Your task to perform on an android device: toggle notifications settings in the gmail app Image 0: 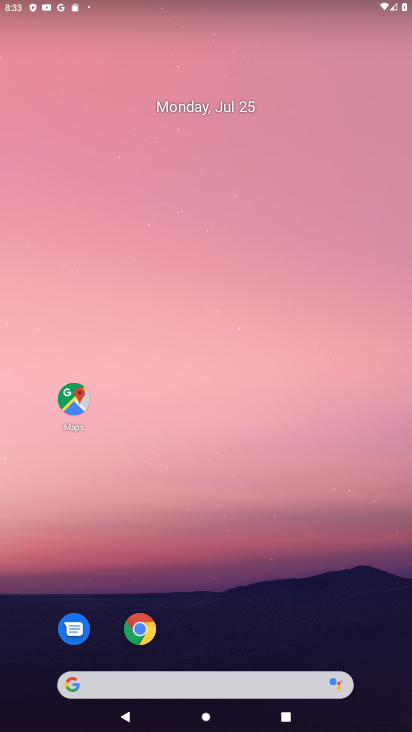
Step 0: drag from (218, 654) to (192, 6)
Your task to perform on an android device: toggle notifications settings in the gmail app Image 1: 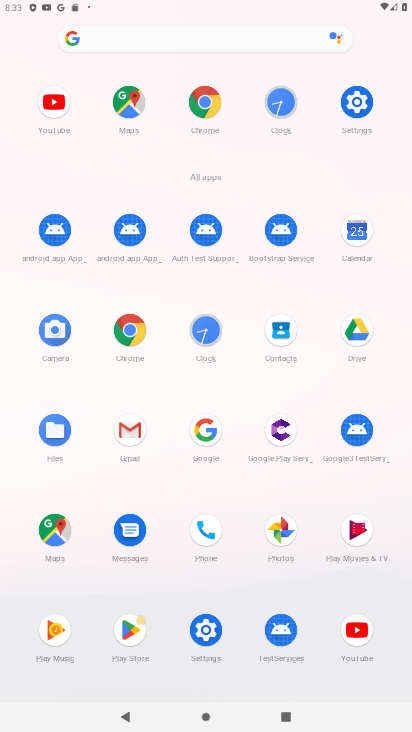
Step 1: click (357, 109)
Your task to perform on an android device: toggle notifications settings in the gmail app Image 2: 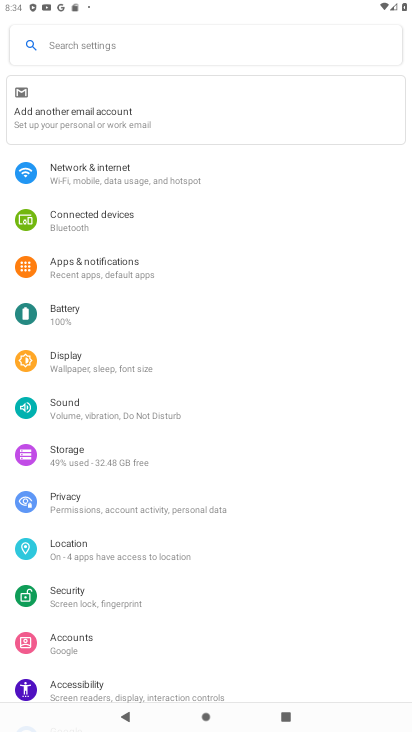
Step 2: click (142, 281)
Your task to perform on an android device: toggle notifications settings in the gmail app Image 3: 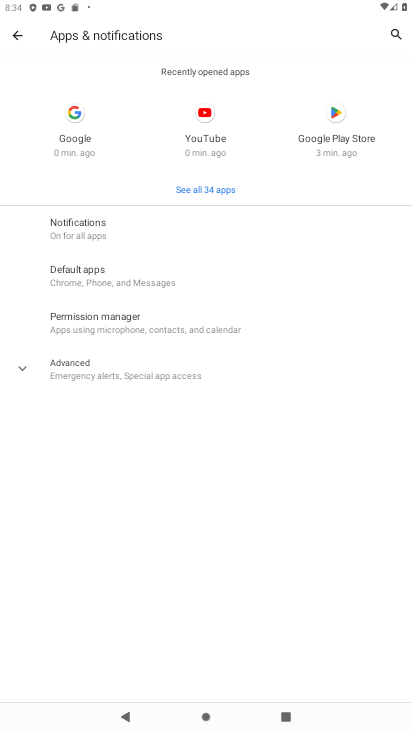
Step 3: click (220, 183)
Your task to perform on an android device: toggle notifications settings in the gmail app Image 4: 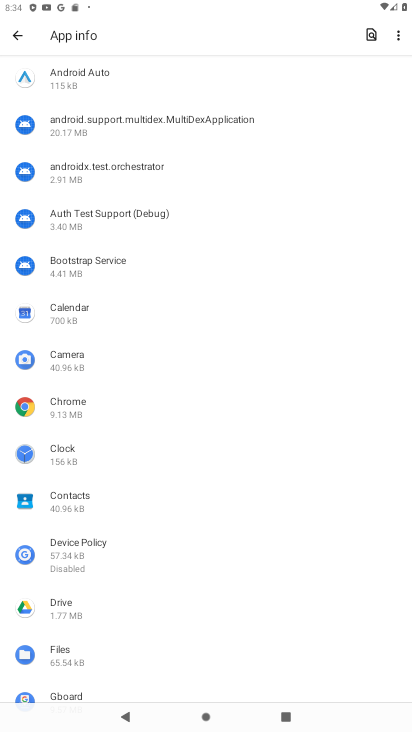
Step 4: drag from (61, 598) to (82, 111)
Your task to perform on an android device: toggle notifications settings in the gmail app Image 5: 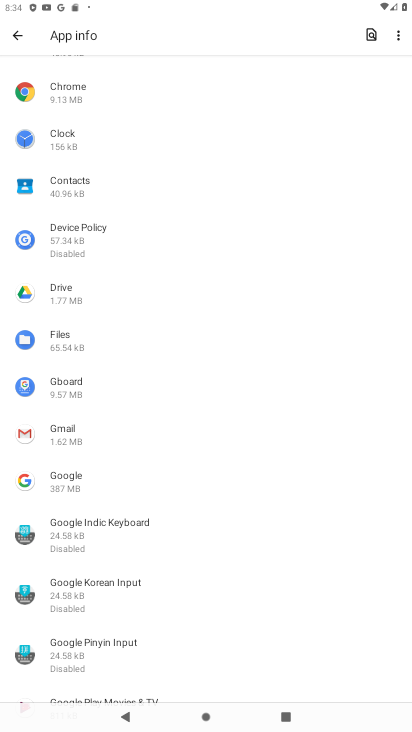
Step 5: click (49, 431)
Your task to perform on an android device: toggle notifications settings in the gmail app Image 6: 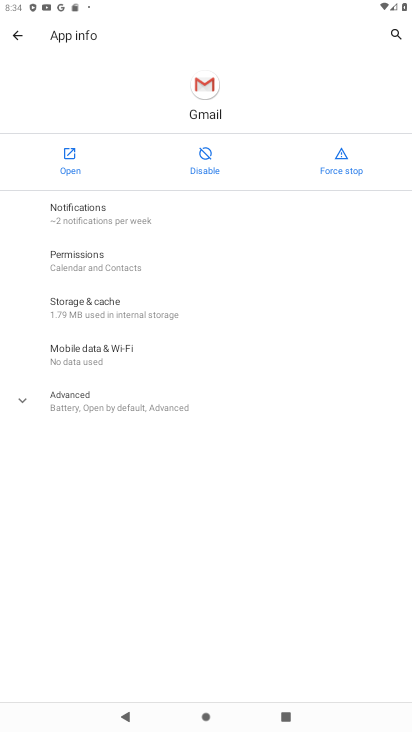
Step 6: click (170, 217)
Your task to perform on an android device: toggle notifications settings in the gmail app Image 7: 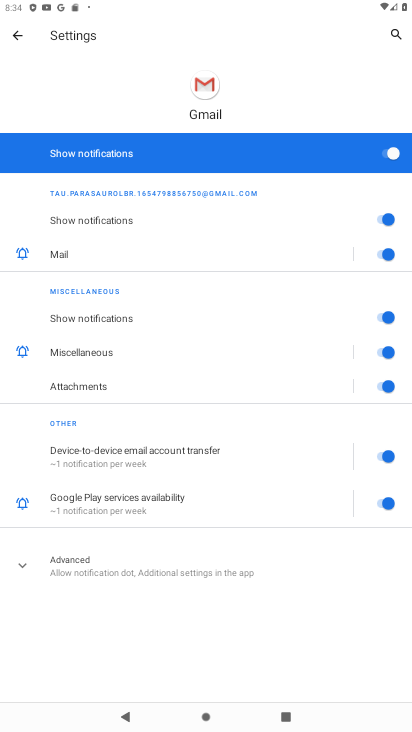
Step 7: click (395, 146)
Your task to perform on an android device: toggle notifications settings in the gmail app Image 8: 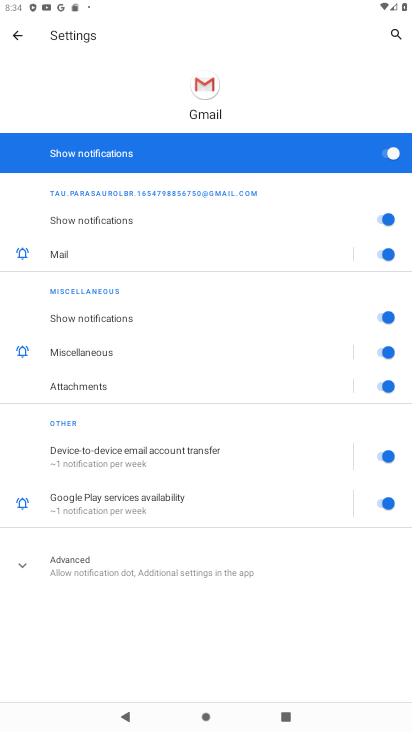
Step 8: click (395, 146)
Your task to perform on an android device: toggle notifications settings in the gmail app Image 9: 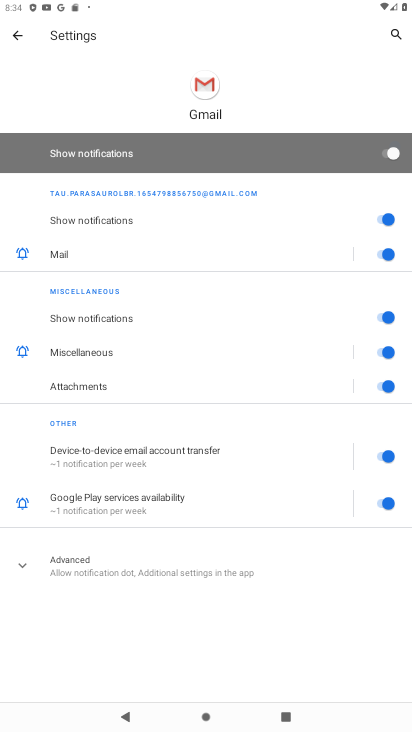
Step 9: click (395, 146)
Your task to perform on an android device: toggle notifications settings in the gmail app Image 10: 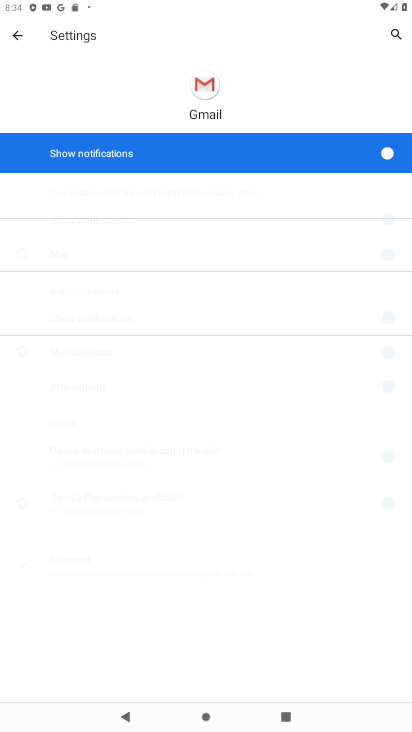
Step 10: click (395, 146)
Your task to perform on an android device: toggle notifications settings in the gmail app Image 11: 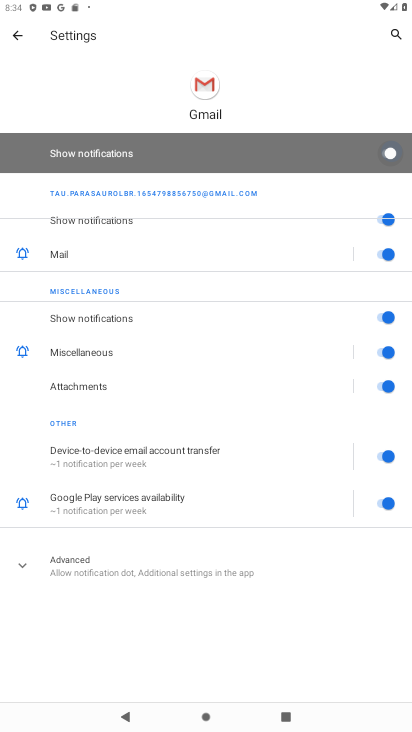
Step 11: click (395, 146)
Your task to perform on an android device: toggle notifications settings in the gmail app Image 12: 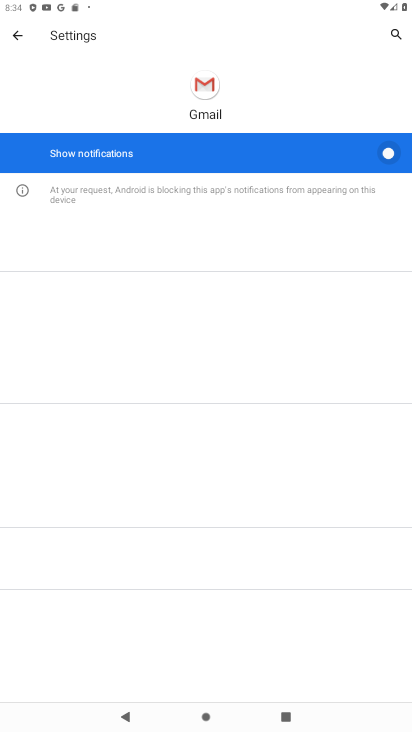
Step 12: click (395, 146)
Your task to perform on an android device: toggle notifications settings in the gmail app Image 13: 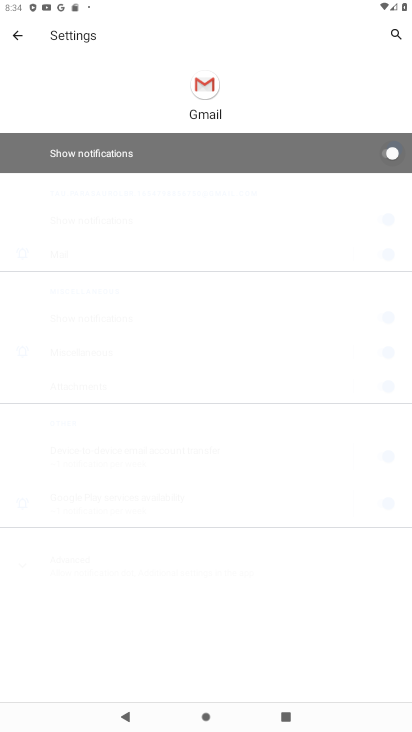
Step 13: click (395, 146)
Your task to perform on an android device: toggle notifications settings in the gmail app Image 14: 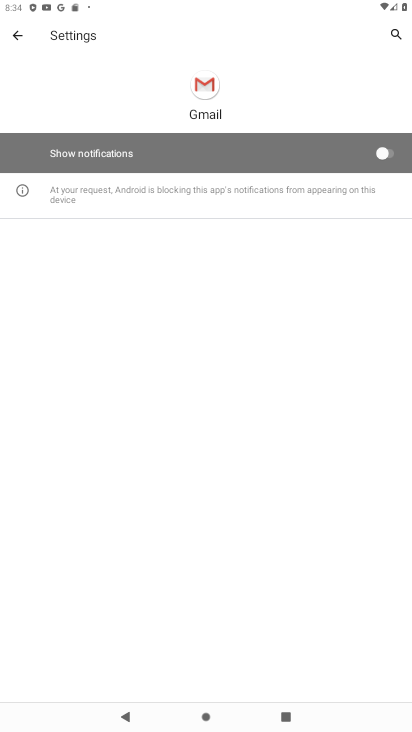
Step 14: task complete